Your task to perform on an android device: check data usage Image 0: 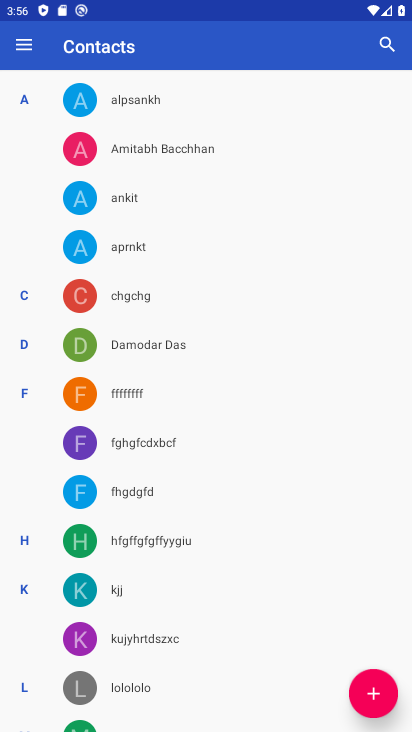
Step 0: press home button
Your task to perform on an android device: check data usage Image 1: 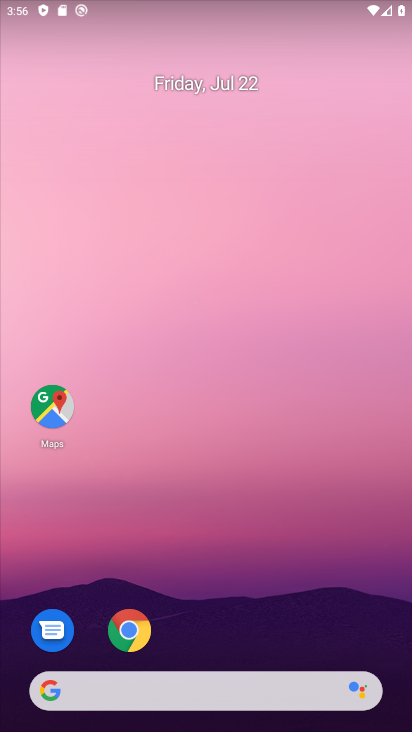
Step 1: drag from (256, 583) to (299, 16)
Your task to perform on an android device: check data usage Image 2: 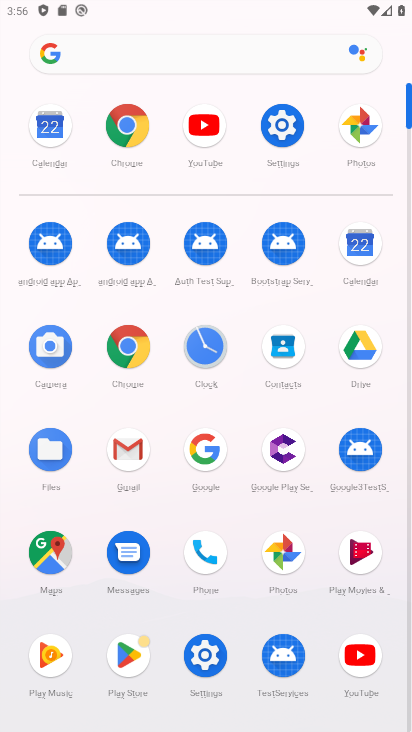
Step 2: click (203, 655)
Your task to perform on an android device: check data usage Image 3: 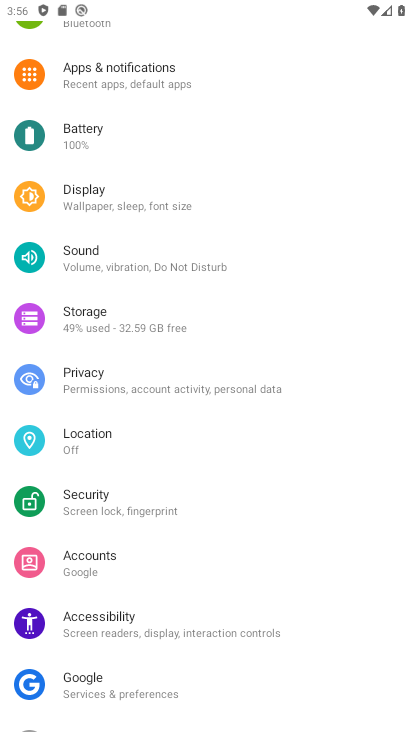
Step 3: drag from (139, 150) to (131, 489)
Your task to perform on an android device: check data usage Image 4: 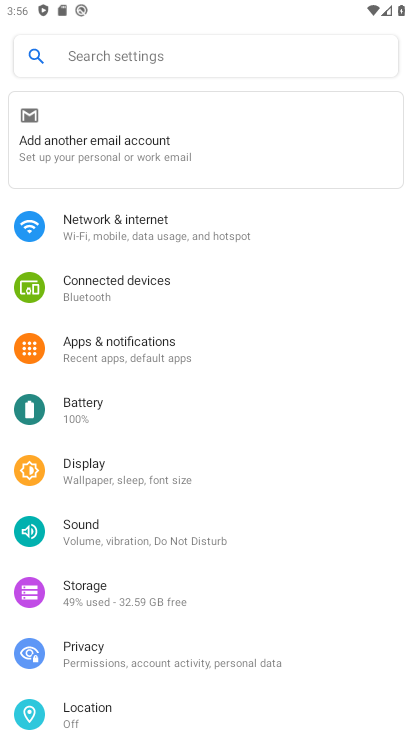
Step 4: click (145, 232)
Your task to perform on an android device: check data usage Image 5: 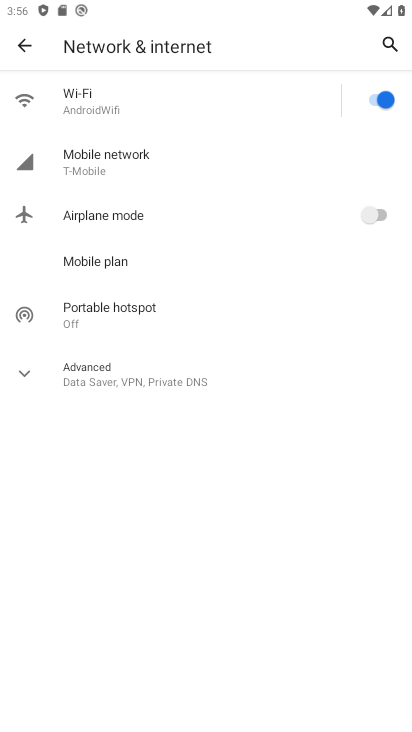
Step 5: click (150, 166)
Your task to perform on an android device: check data usage Image 6: 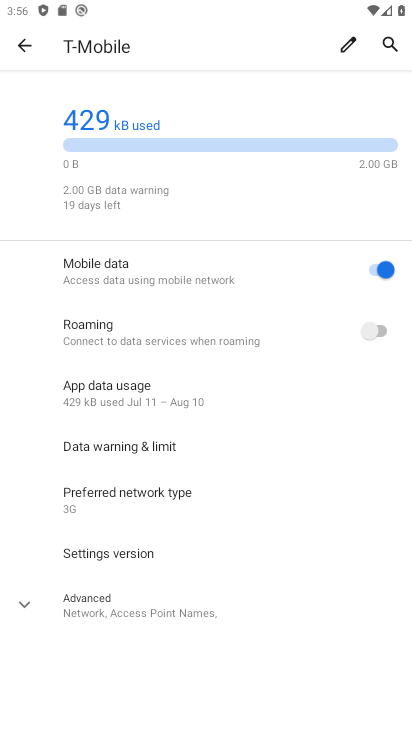
Step 6: click (199, 403)
Your task to perform on an android device: check data usage Image 7: 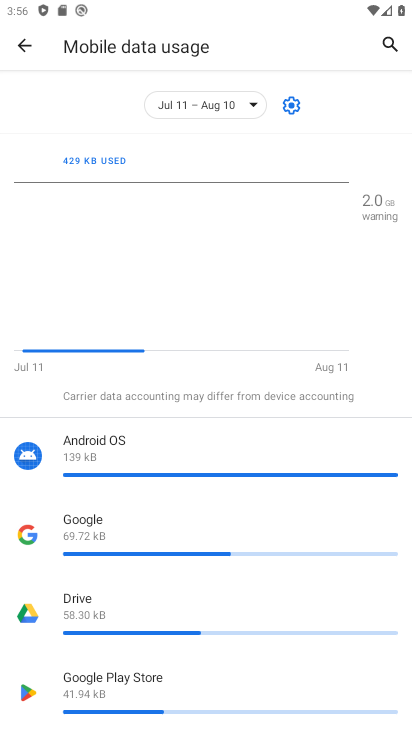
Step 7: task complete